Your task to perform on an android device: turn off airplane mode Image 0: 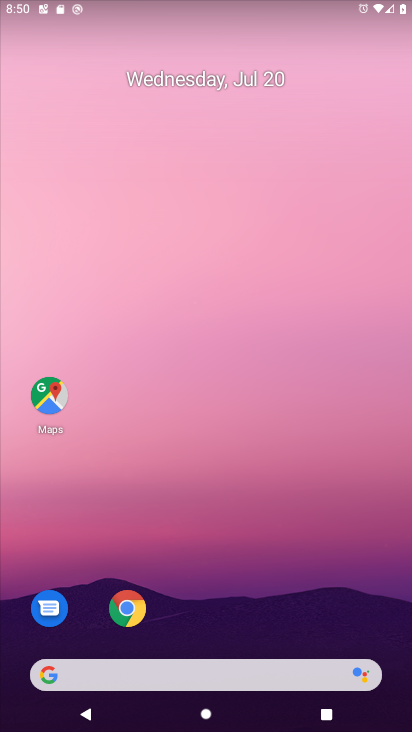
Step 0: drag from (223, 589) to (189, 329)
Your task to perform on an android device: turn off airplane mode Image 1: 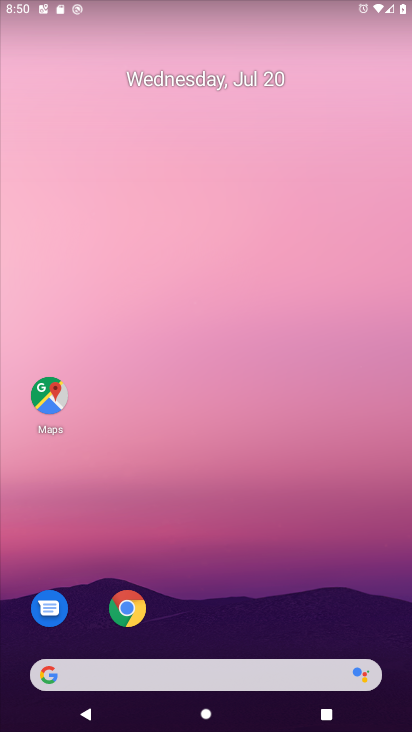
Step 1: drag from (194, 686) to (303, 13)
Your task to perform on an android device: turn off airplane mode Image 2: 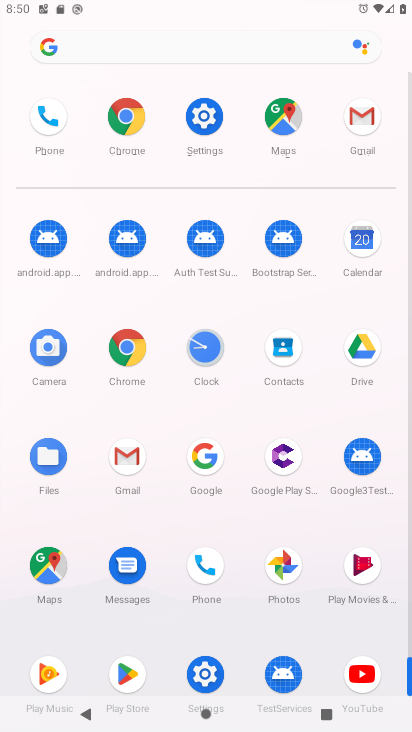
Step 2: click (199, 123)
Your task to perform on an android device: turn off airplane mode Image 3: 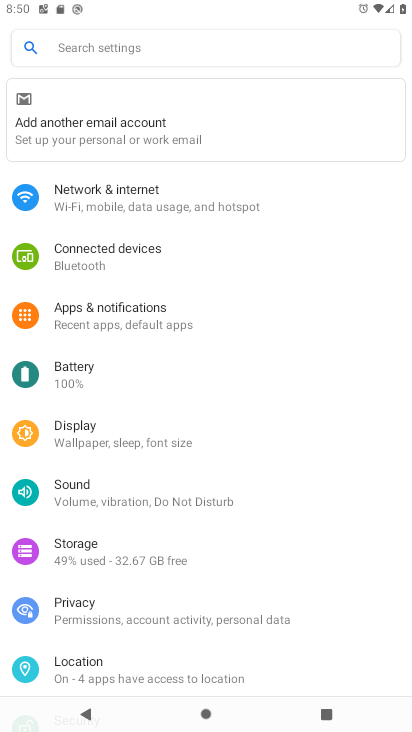
Step 3: click (152, 200)
Your task to perform on an android device: turn off airplane mode Image 4: 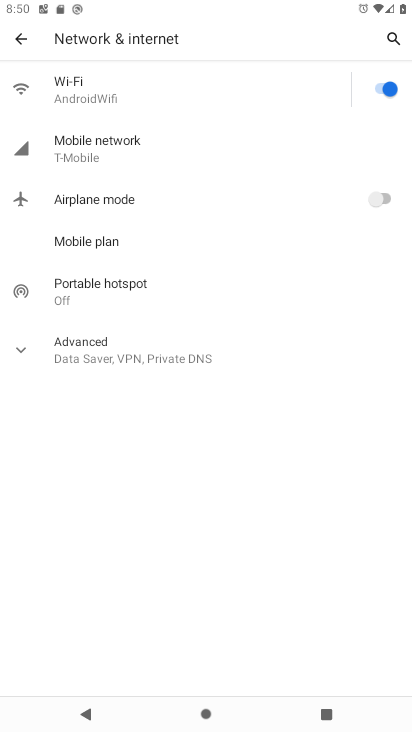
Step 4: click (383, 195)
Your task to perform on an android device: turn off airplane mode Image 5: 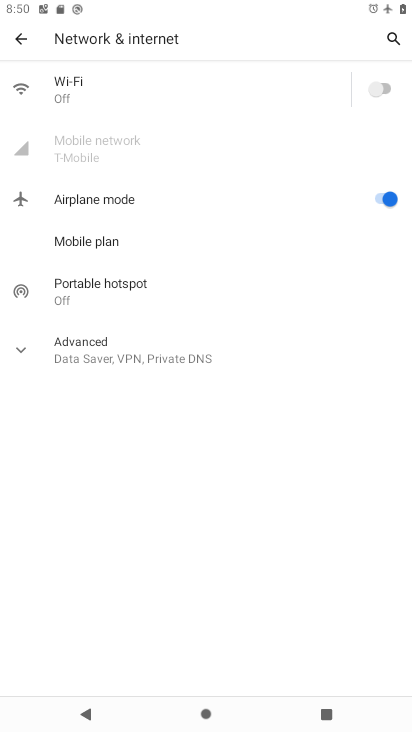
Step 5: click (383, 195)
Your task to perform on an android device: turn off airplane mode Image 6: 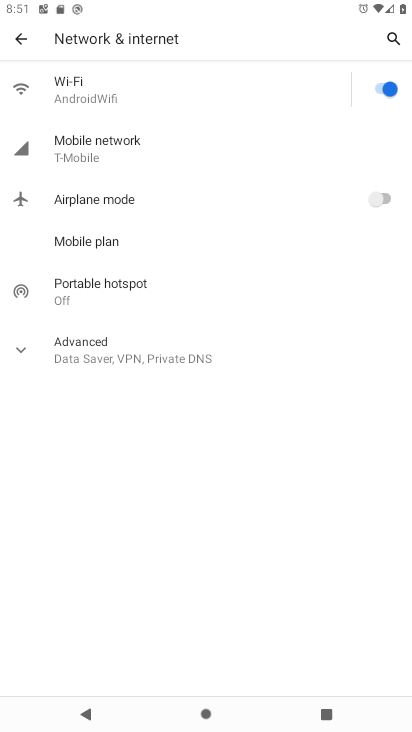
Step 6: task complete